Your task to perform on an android device: Go to network settings Image 0: 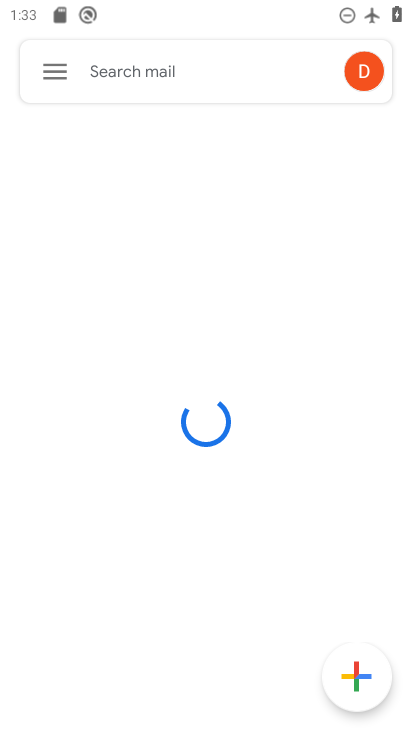
Step 0: press home button
Your task to perform on an android device: Go to network settings Image 1: 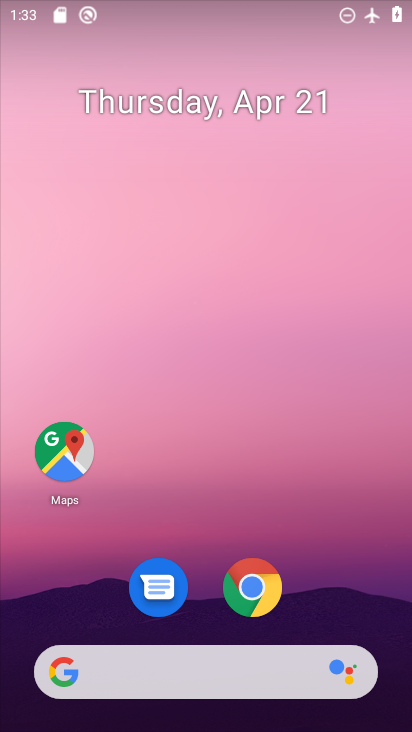
Step 1: drag from (330, 501) to (255, 118)
Your task to perform on an android device: Go to network settings Image 2: 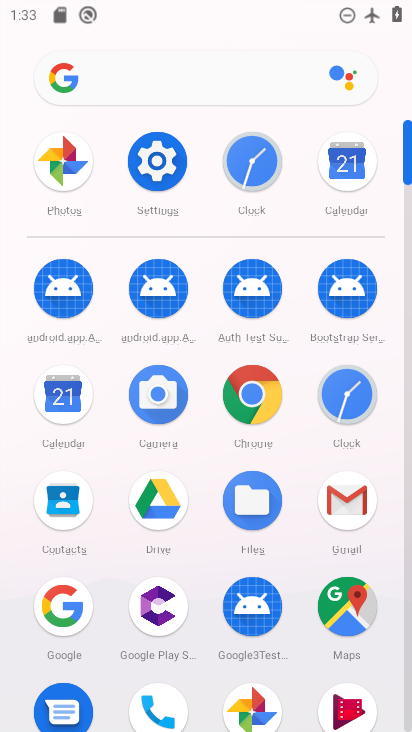
Step 2: click (158, 160)
Your task to perform on an android device: Go to network settings Image 3: 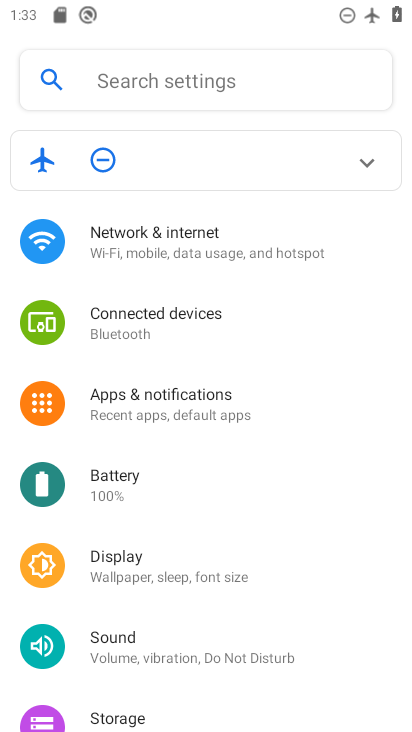
Step 3: click (146, 236)
Your task to perform on an android device: Go to network settings Image 4: 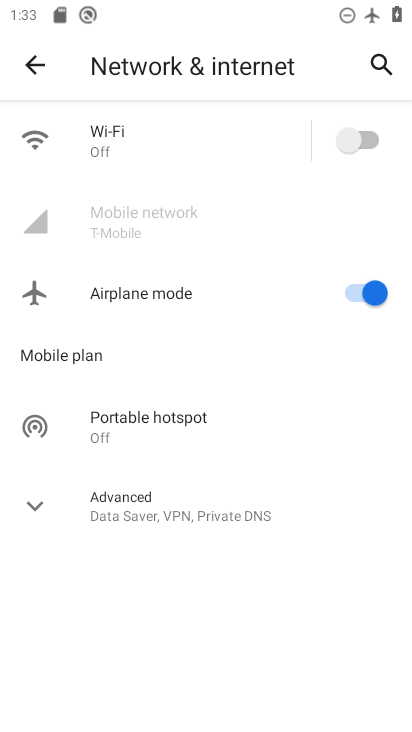
Step 4: task complete